Your task to perform on an android device: manage bookmarks in the chrome app Image 0: 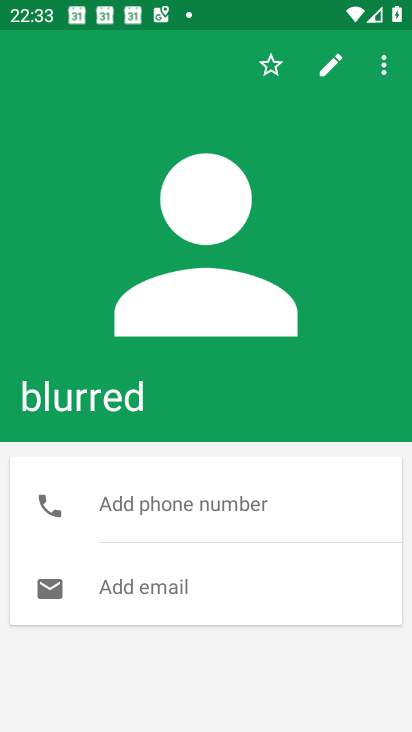
Step 0: press home button
Your task to perform on an android device: manage bookmarks in the chrome app Image 1: 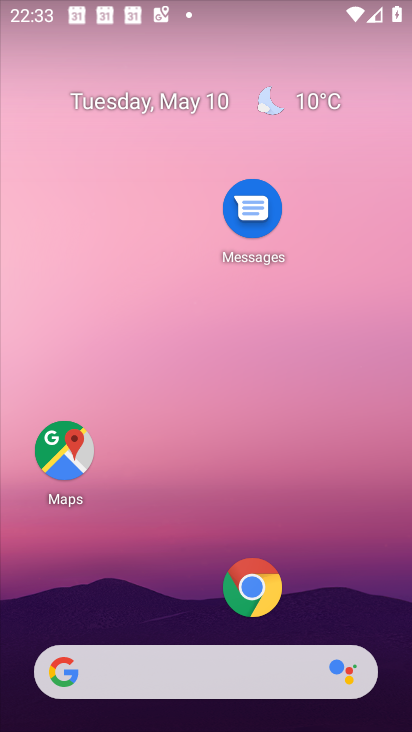
Step 1: click (253, 578)
Your task to perform on an android device: manage bookmarks in the chrome app Image 2: 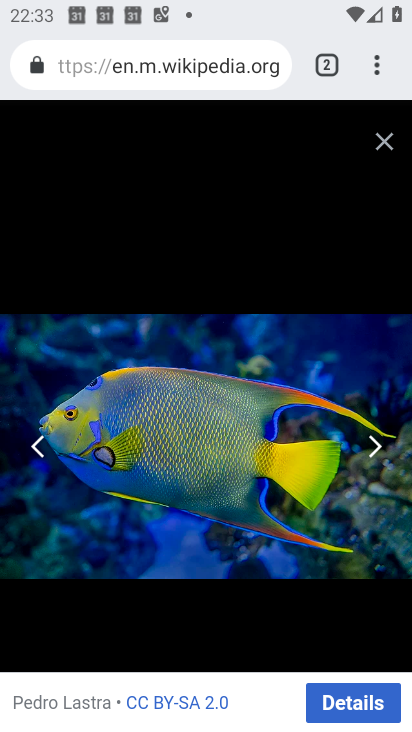
Step 2: click (385, 66)
Your task to perform on an android device: manage bookmarks in the chrome app Image 3: 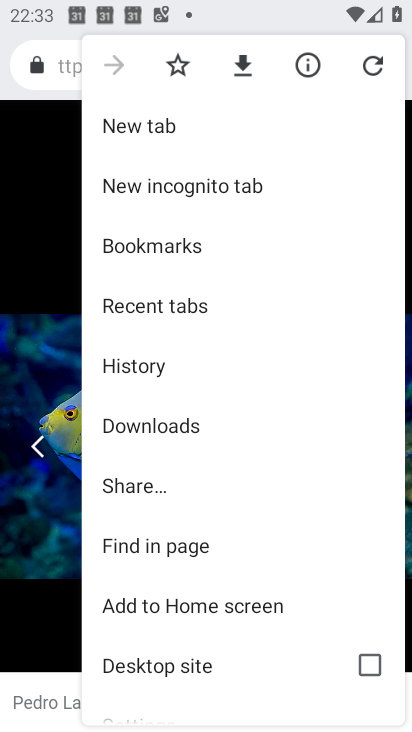
Step 3: click (157, 240)
Your task to perform on an android device: manage bookmarks in the chrome app Image 4: 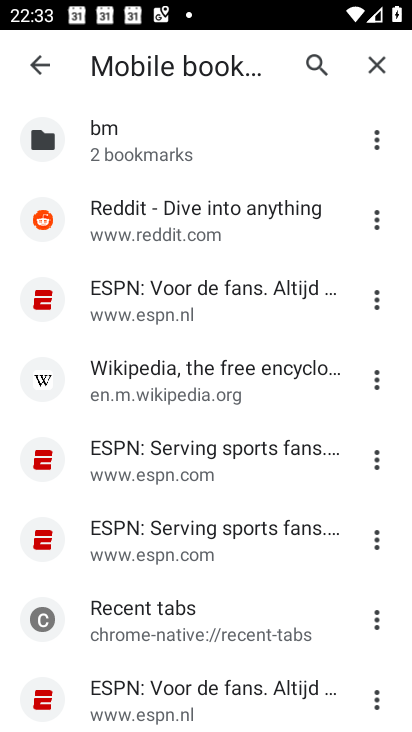
Step 4: click (379, 216)
Your task to perform on an android device: manage bookmarks in the chrome app Image 5: 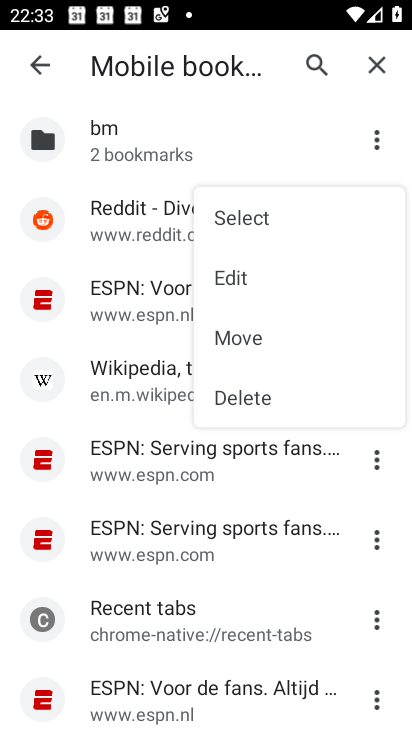
Step 5: click (258, 211)
Your task to perform on an android device: manage bookmarks in the chrome app Image 6: 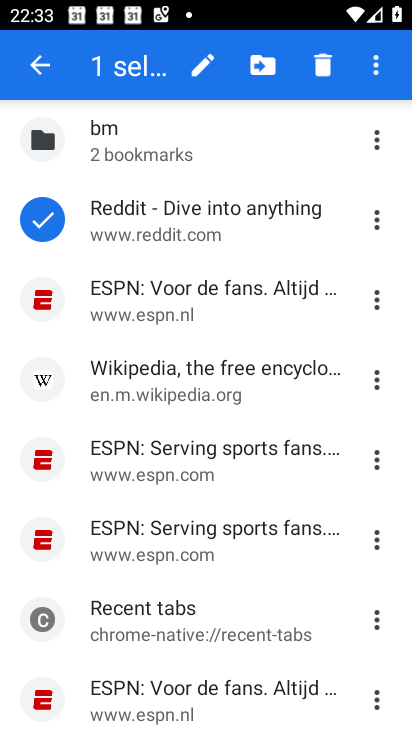
Step 6: click (162, 289)
Your task to perform on an android device: manage bookmarks in the chrome app Image 7: 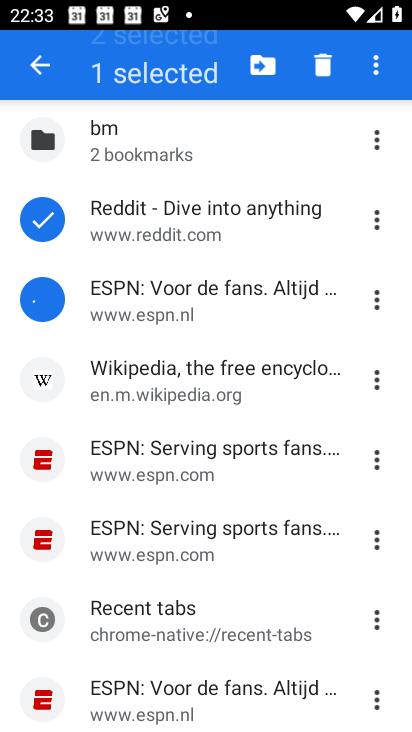
Step 7: click (148, 392)
Your task to perform on an android device: manage bookmarks in the chrome app Image 8: 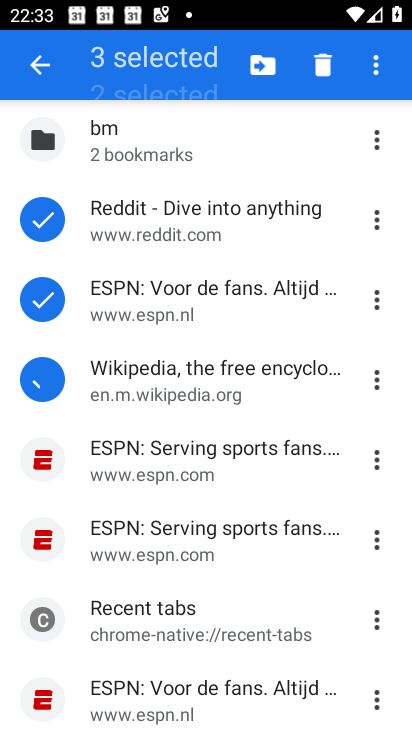
Step 8: click (149, 457)
Your task to perform on an android device: manage bookmarks in the chrome app Image 9: 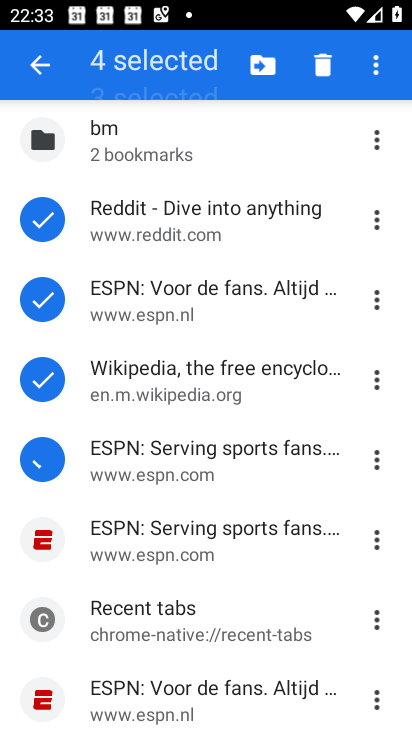
Step 9: click (149, 556)
Your task to perform on an android device: manage bookmarks in the chrome app Image 10: 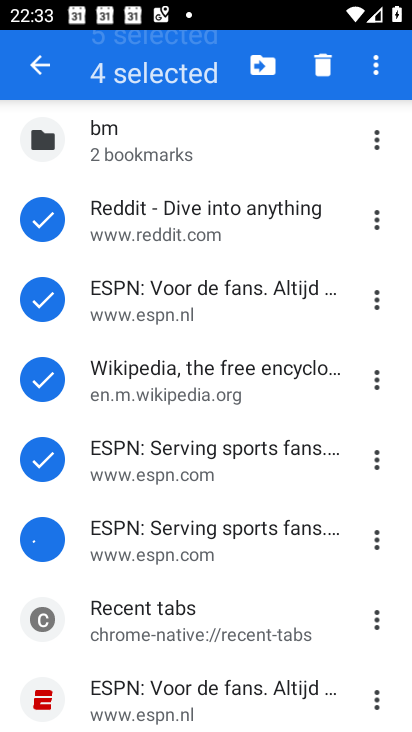
Step 10: click (141, 636)
Your task to perform on an android device: manage bookmarks in the chrome app Image 11: 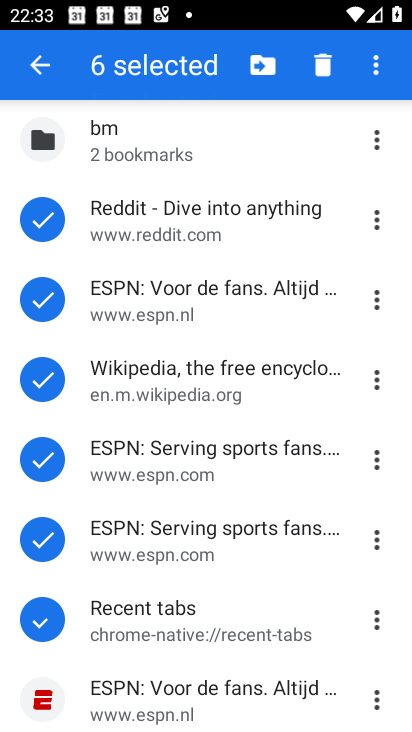
Step 11: click (128, 693)
Your task to perform on an android device: manage bookmarks in the chrome app Image 12: 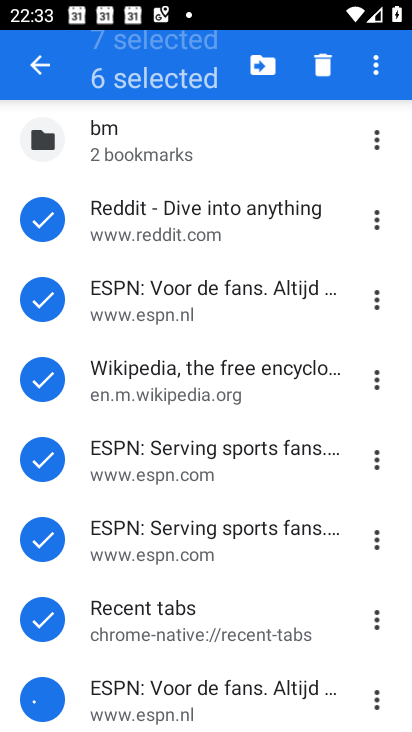
Step 12: drag from (127, 688) to (172, 316)
Your task to perform on an android device: manage bookmarks in the chrome app Image 13: 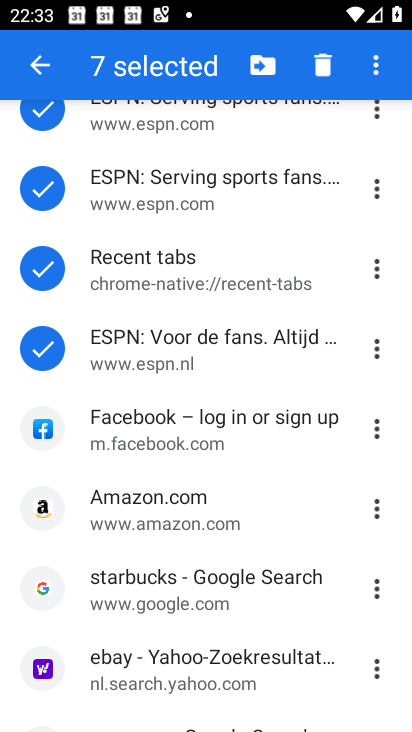
Step 13: click (146, 506)
Your task to perform on an android device: manage bookmarks in the chrome app Image 14: 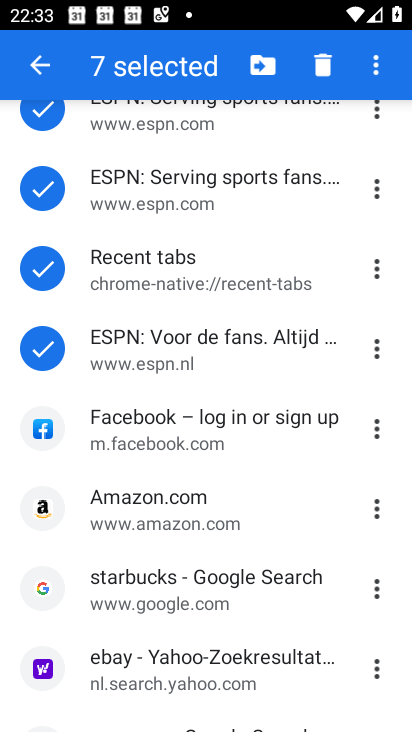
Step 14: click (154, 402)
Your task to perform on an android device: manage bookmarks in the chrome app Image 15: 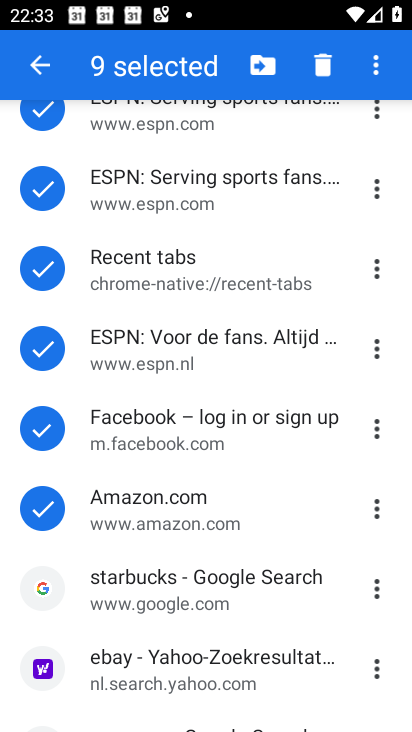
Step 15: click (156, 612)
Your task to perform on an android device: manage bookmarks in the chrome app Image 16: 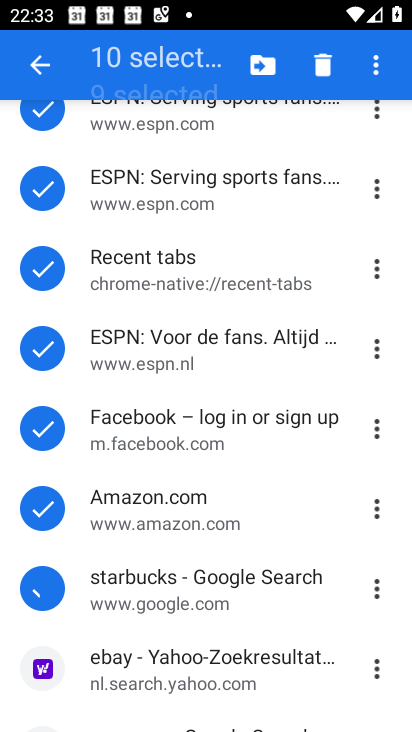
Step 16: click (143, 662)
Your task to perform on an android device: manage bookmarks in the chrome app Image 17: 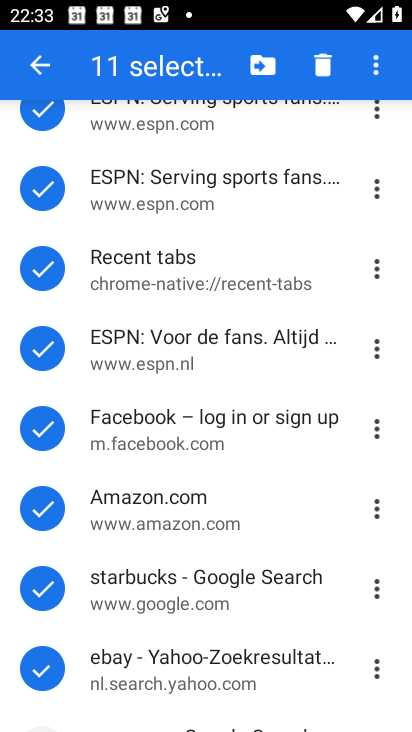
Step 17: drag from (143, 662) to (184, 442)
Your task to perform on an android device: manage bookmarks in the chrome app Image 18: 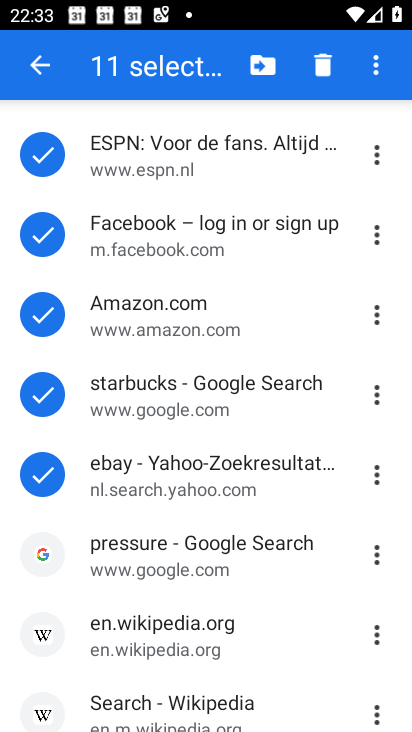
Step 18: click (172, 555)
Your task to perform on an android device: manage bookmarks in the chrome app Image 19: 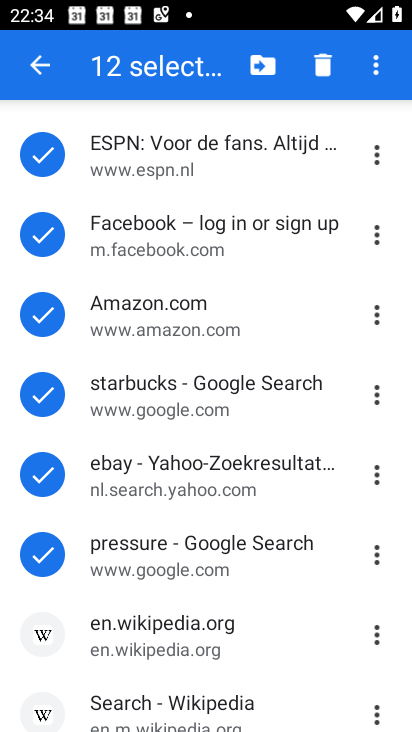
Step 19: click (172, 639)
Your task to perform on an android device: manage bookmarks in the chrome app Image 20: 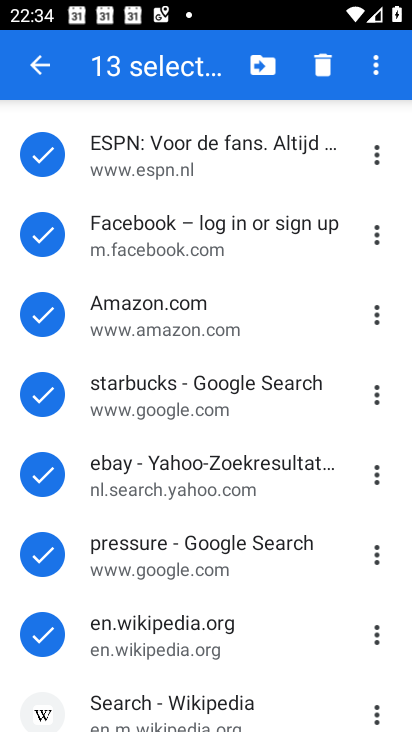
Step 20: click (186, 713)
Your task to perform on an android device: manage bookmarks in the chrome app Image 21: 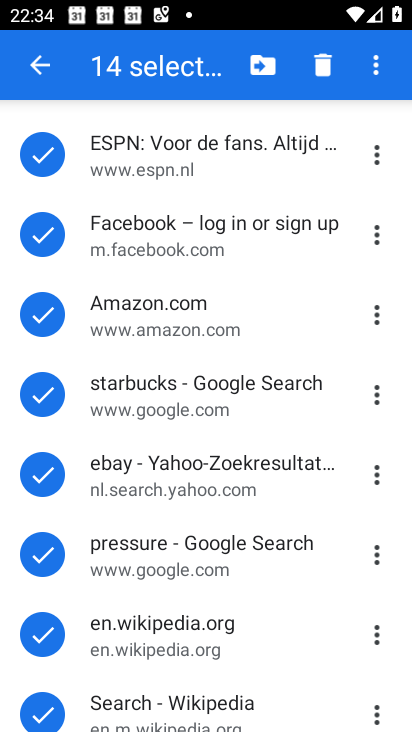
Step 21: drag from (172, 661) to (208, 240)
Your task to perform on an android device: manage bookmarks in the chrome app Image 22: 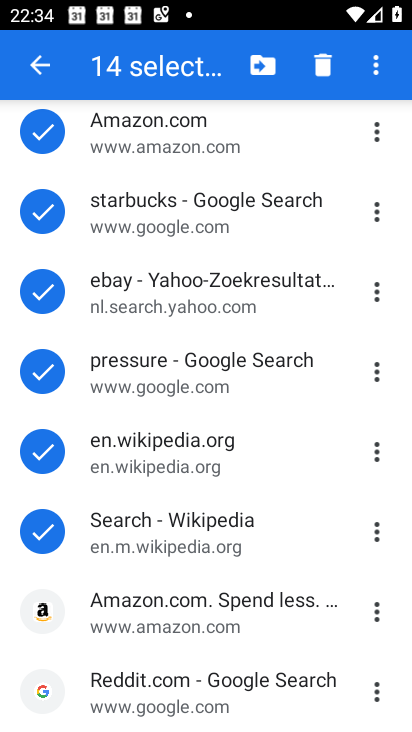
Step 22: click (129, 617)
Your task to perform on an android device: manage bookmarks in the chrome app Image 23: 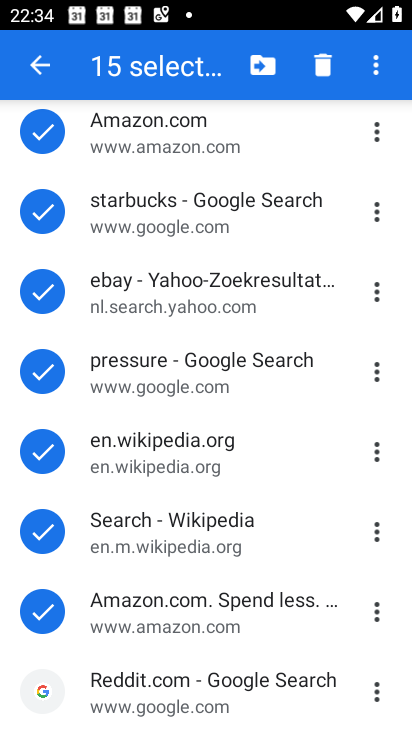
Step 23: click (136, 696)
Your task to perform on an android device: manage bookmarks in the chrome app Image 24: 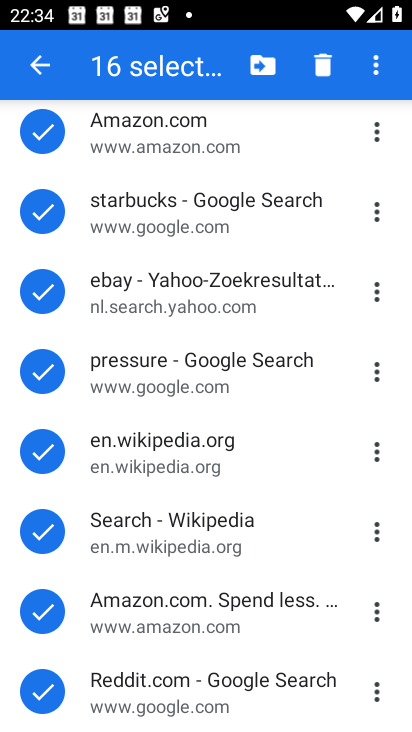
Step 24: click (266, 71)
Your task to perform on an android device: manage bookmarks in the chrome app Image 25: 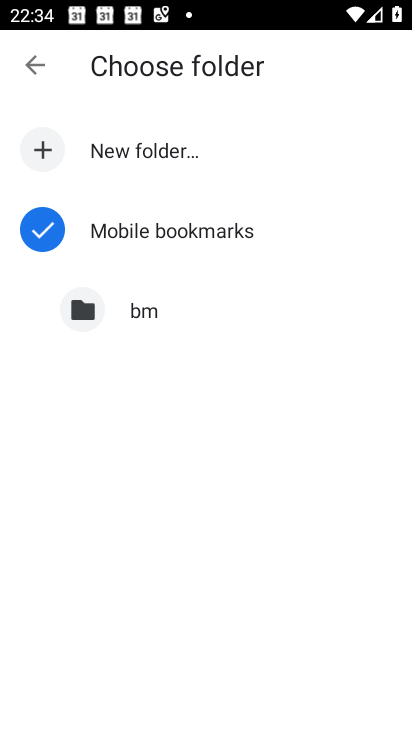
Step 25: click (143, 316)
Your task to perform on an android device: manage bookmarks in the chrome app Image 26: 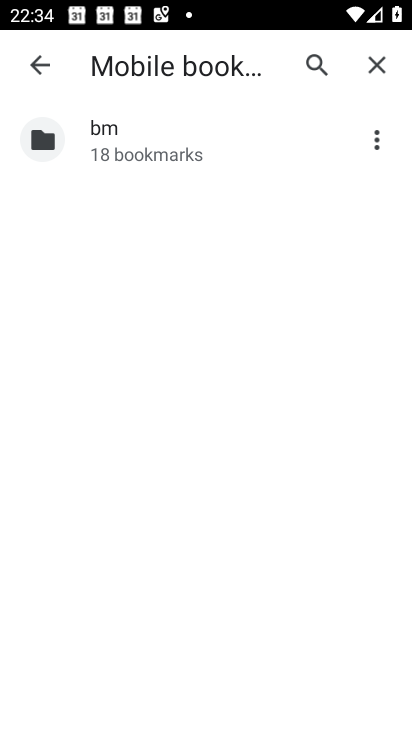
Step 26: task complete